Your task to perform on an android device: Search for the best selling book on Amazon. Image 0: 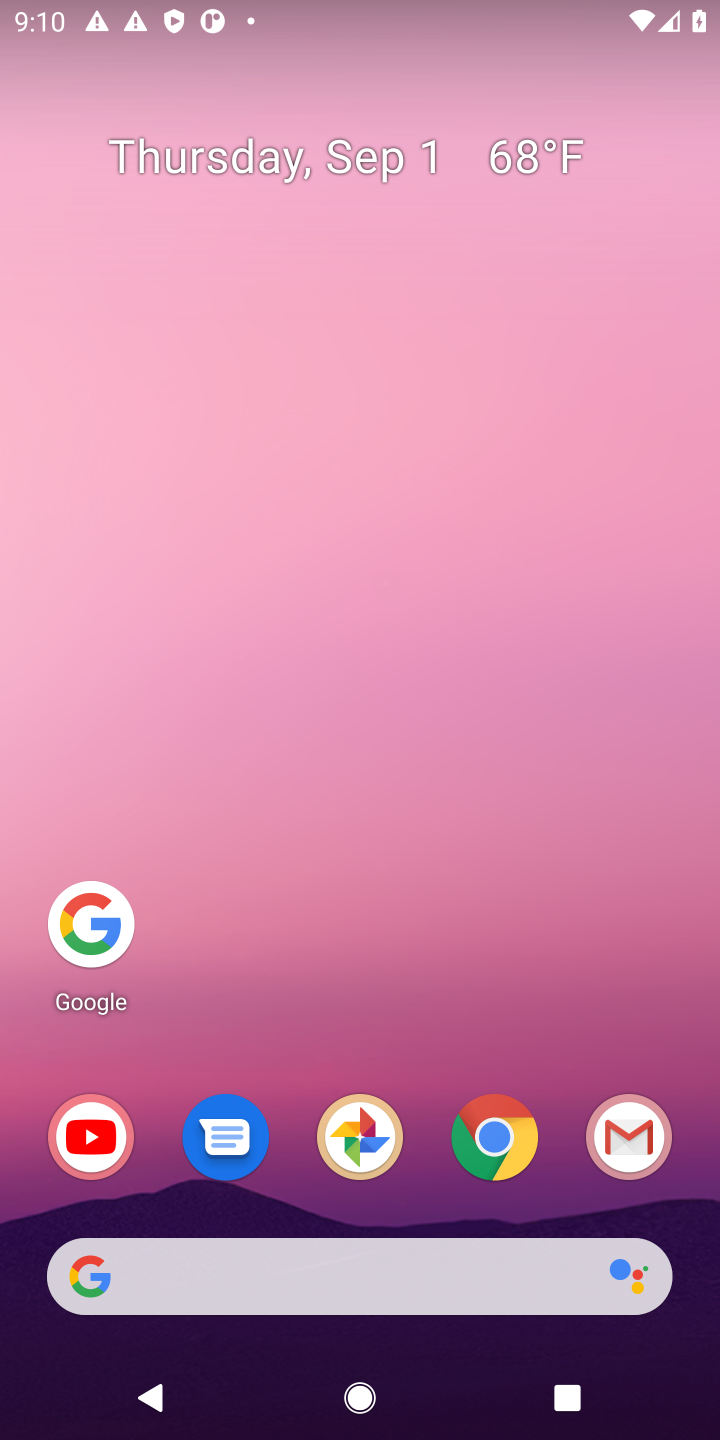
Step 0: click (391, 1244)
Your task to perform on an android device: Search for the best selling book on Amazon. Image 1: 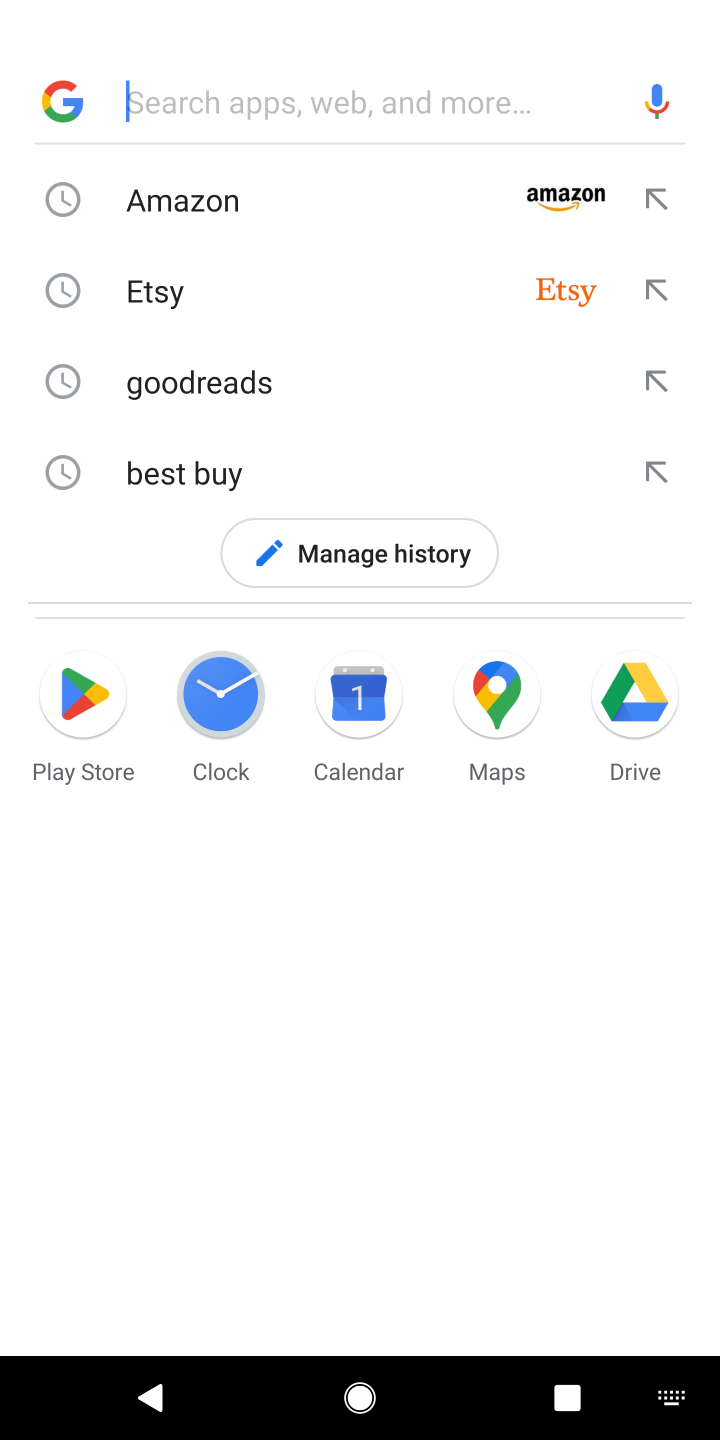
Step 1: click (187, 192)
Your task to perform on an android device: Search for the best selling book on Amazon. Image 2: 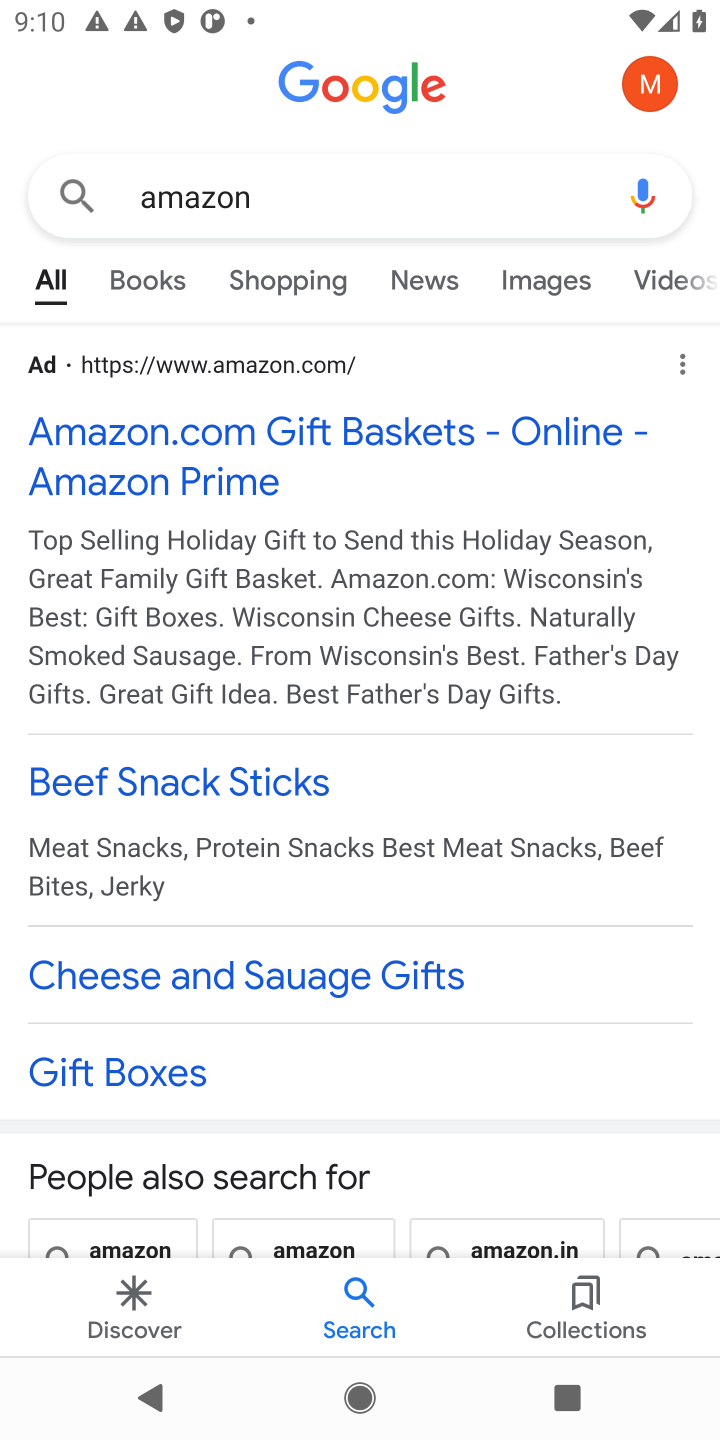
Step 2: click (135, 478)
Your task to perform on an android device: Search for the best selling book on Amazon. Image 3: 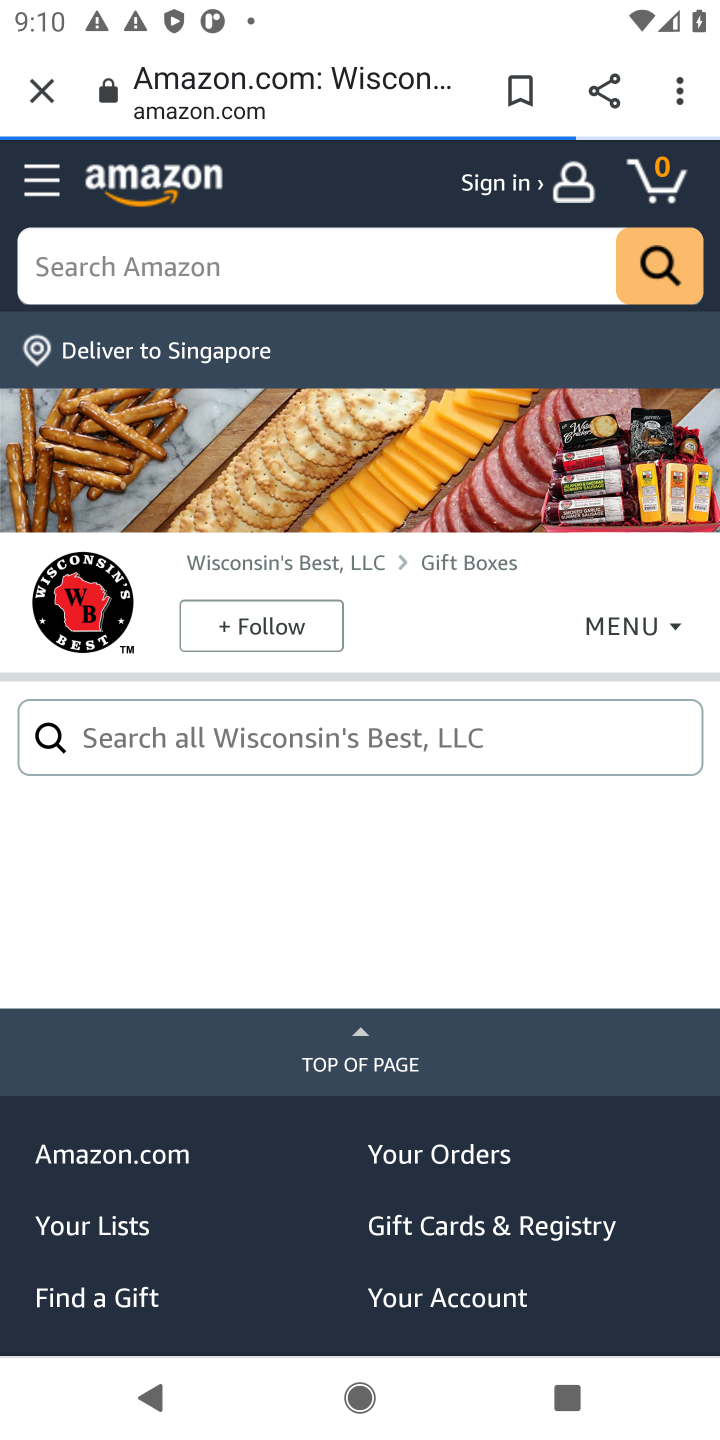
Step 3: click (366, 259)
Your task to perform on an android device: Search for the best selling book on Amazon. Image 4: 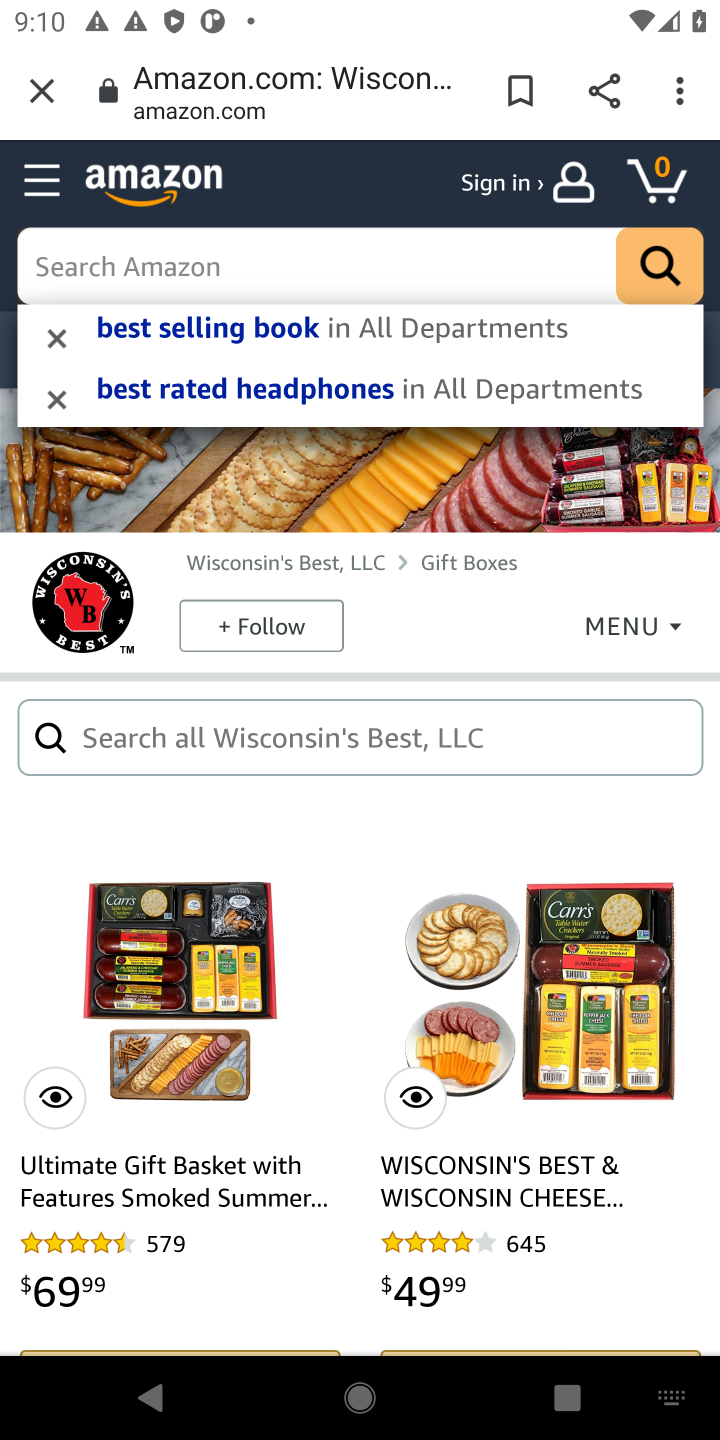
Step 4: type "the best selling book"
Your task to perform on an android device: Search for the best selling book on Amazon. Image 5: 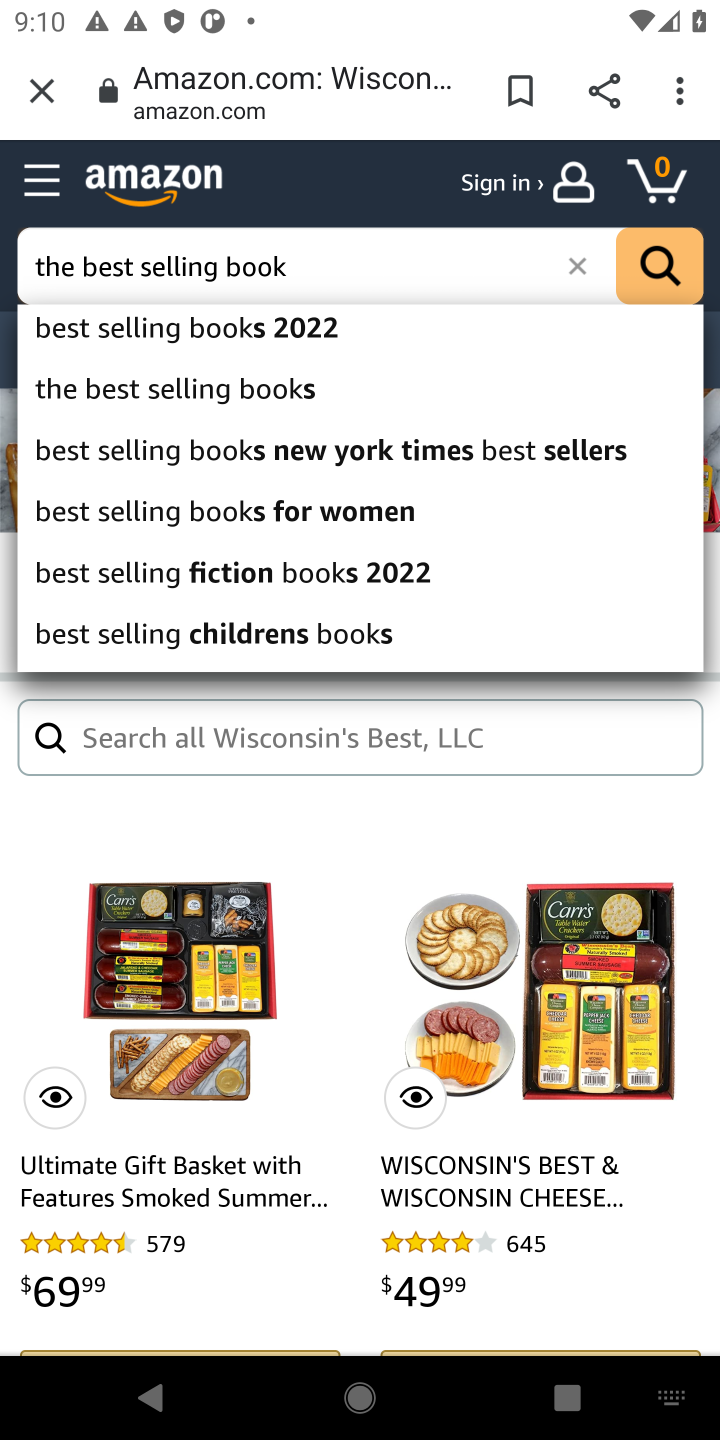
Step 5: click (190, 386)
Your task to perform on an android device: Search for the best selling book on Amazon. Image 6: 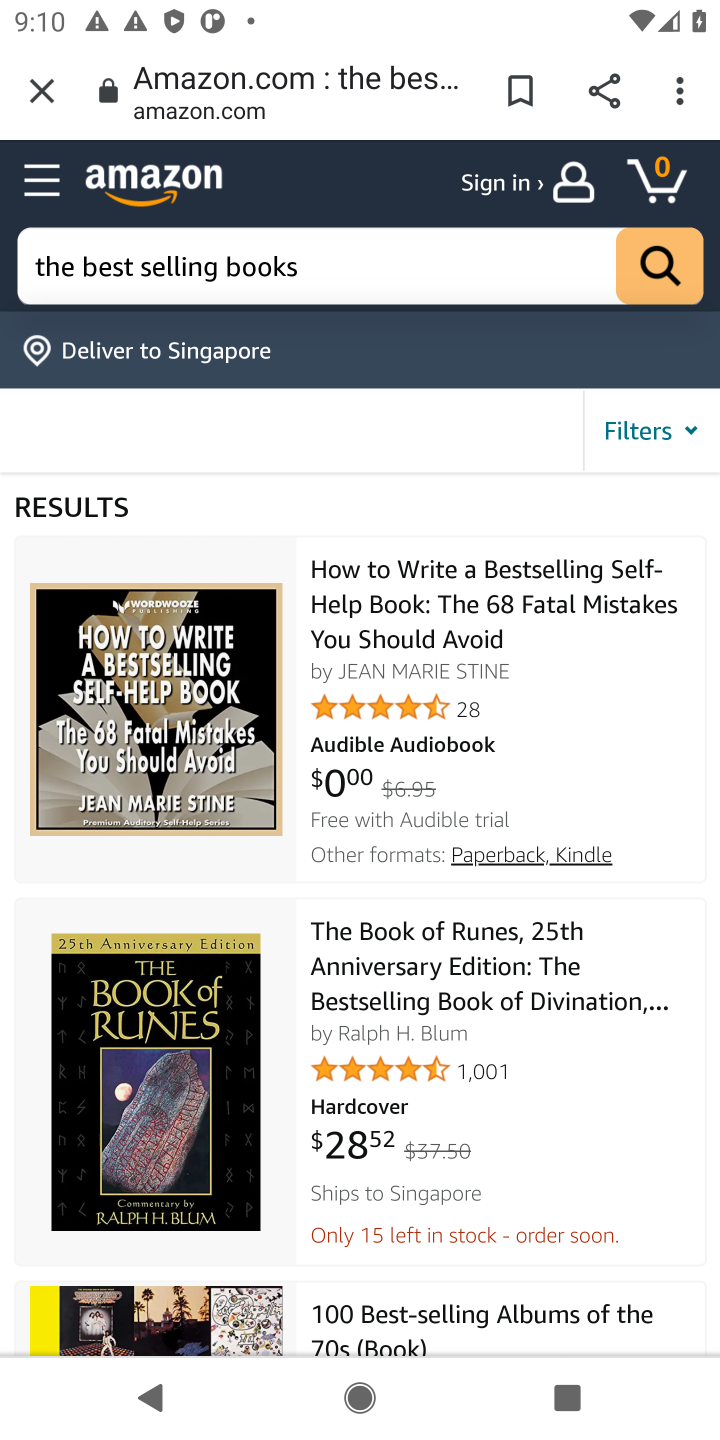
Step 6: task complete